Your task to perform on an android device: all mails in gmail Image 0: 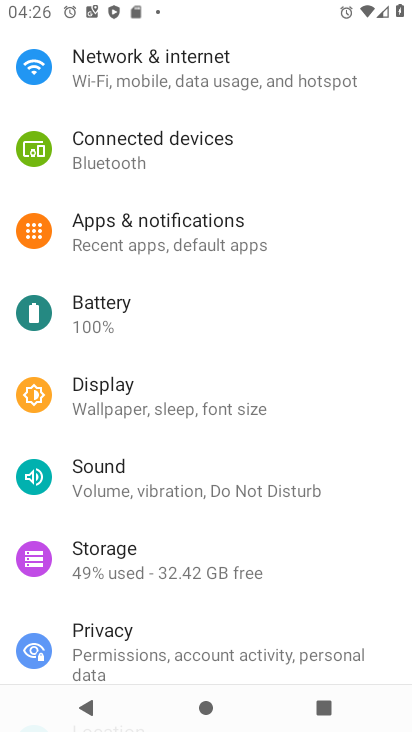
Step 0: press home button
Your task to perform on an android device: all mails in gmail Image 1: 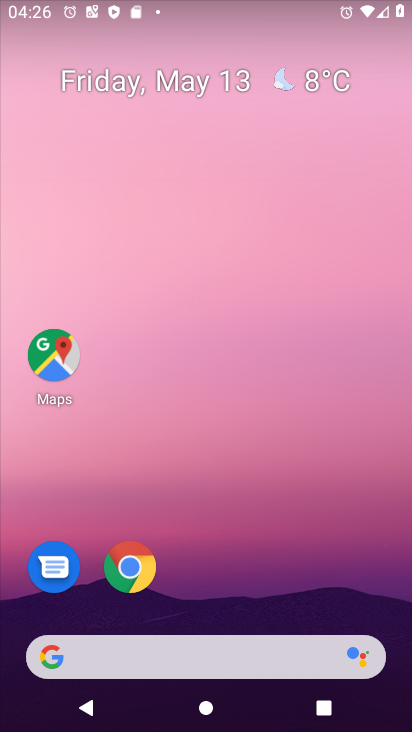
Step 1: drag from (314, 608) to (227, 12)
Your task to perform on an android device: all mails in gmail Image 2: 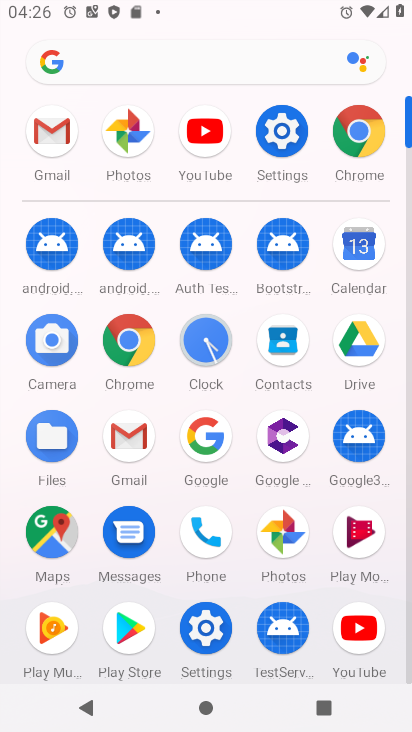
Step 2: click (50, 135)
Your task to perform on an android device: all mails in gmail Image 3: 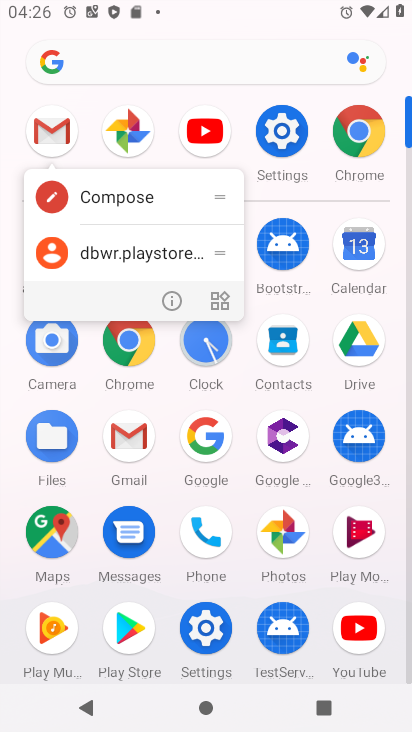
Step 3: click (50, 135)
Your task to perform on an android device: all mails in gmail Image 4: 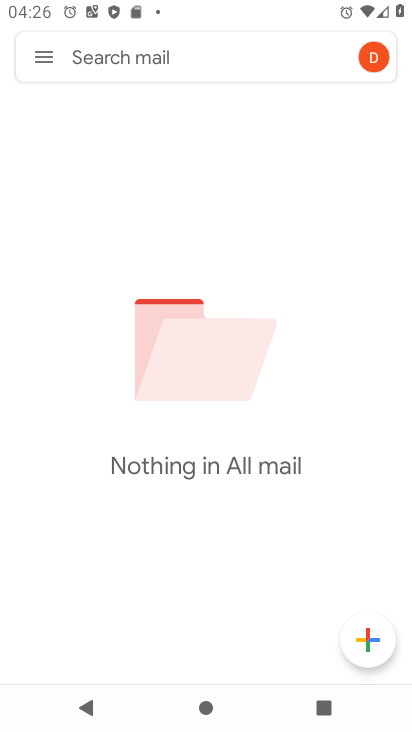
Step 4: task complete